Your task to perform on an android device: Go to settings Image 0: 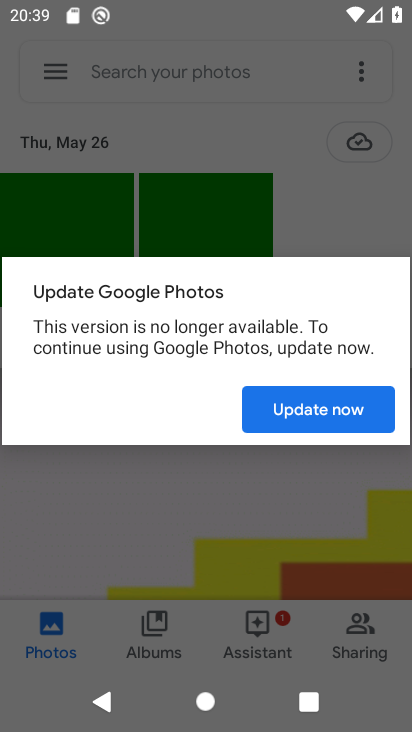
Step 0: press home button
Your task to perform on an android device: Go to settings Image 1: 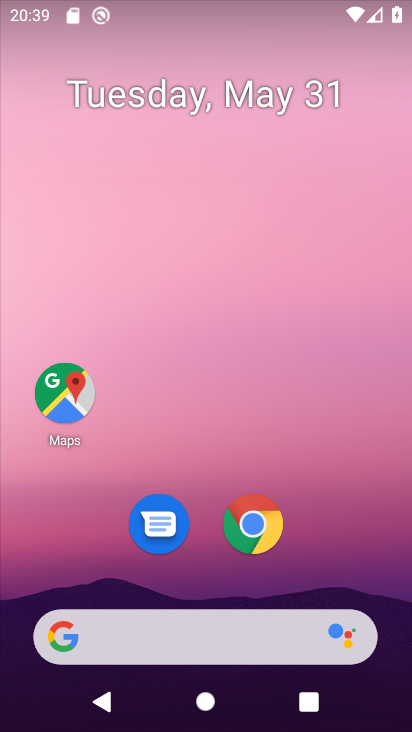
Step 1: drag from (343, 544) to (270, 10)
Your task to perform on an android device: Go to settings Image 2: 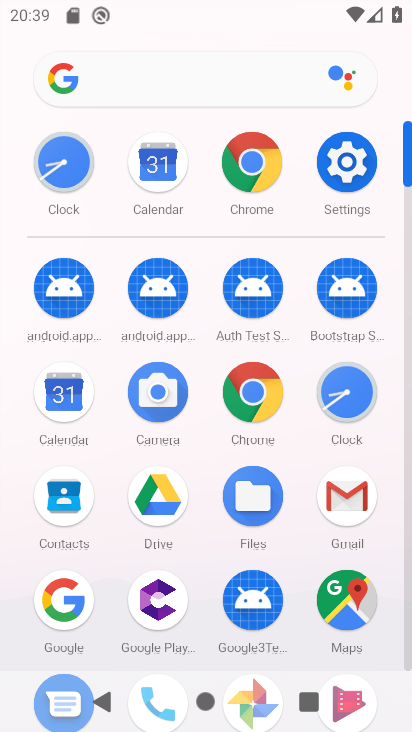
Step 2: click (346, 151)
Your task to perform on an android device: Go to settings Image 3: 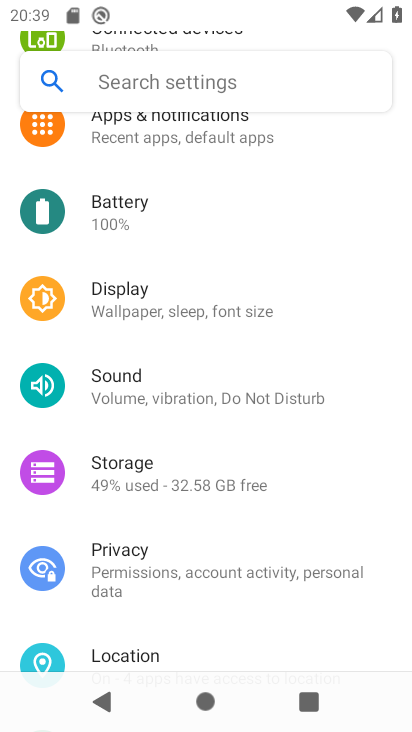
Step 3: task complete